Your task to perform on an android device: Open calendar and show me the third week of next month Image 0: 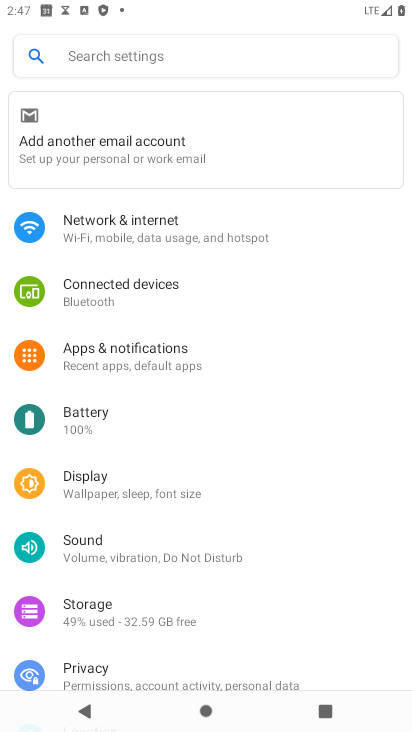
Step 0: press home button
Your task to perform on an android device: Open calendar and show me the third week of next month Image 1: 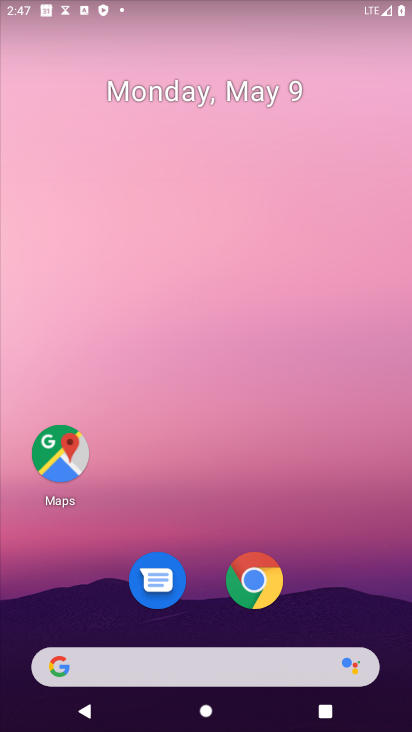
Step 1: drag from (362, 568) to (259, 98)
Your task to perform on an android device: Open calendar and show me the third week of next month Image 2: 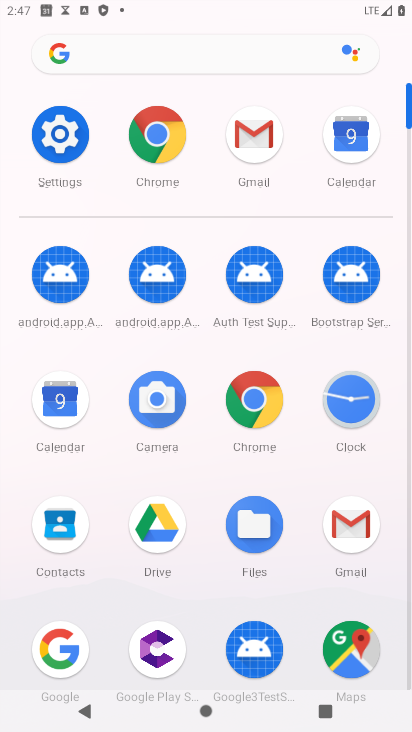
Step 2: click (79, 395)
Your task to perform on an android device: Open calendar and show me the third week of next month Image 3: 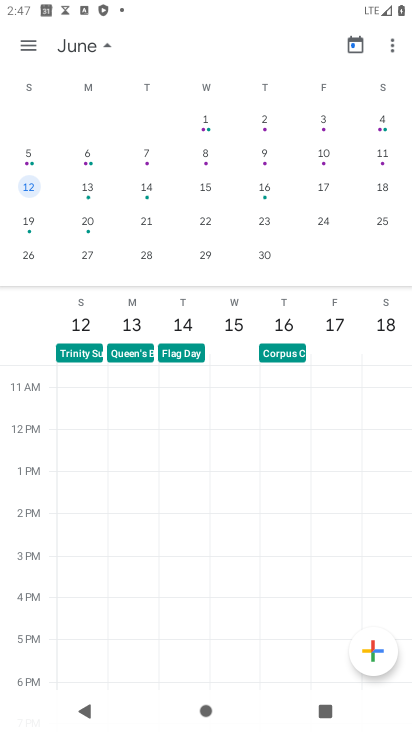
Step 3: task complete